Your task to perform on an android device: Open calendar and show me the first week of next month Image 0: 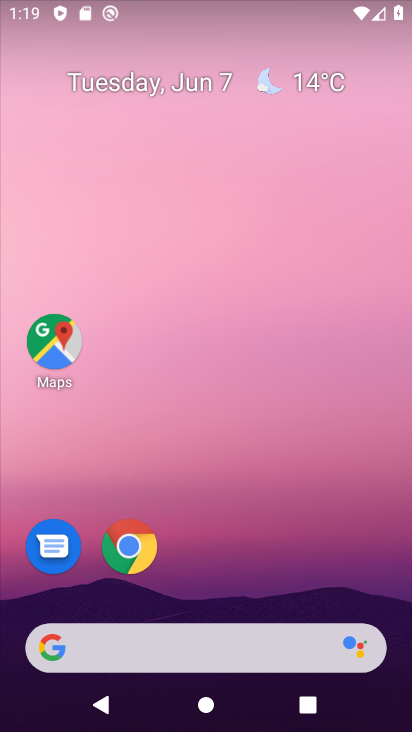
Step 0: drag from (308, 590) to (248, 65)
Your task to perform on an android device: Open calendar and show me the first week of next month Image 1: 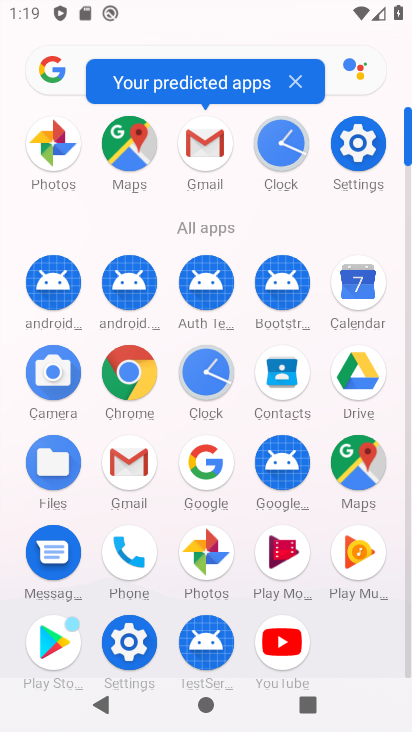
Step 1: click (369, 279)
Your task to perform on an android device: Open calendar and show me the first week of next month Image 2: 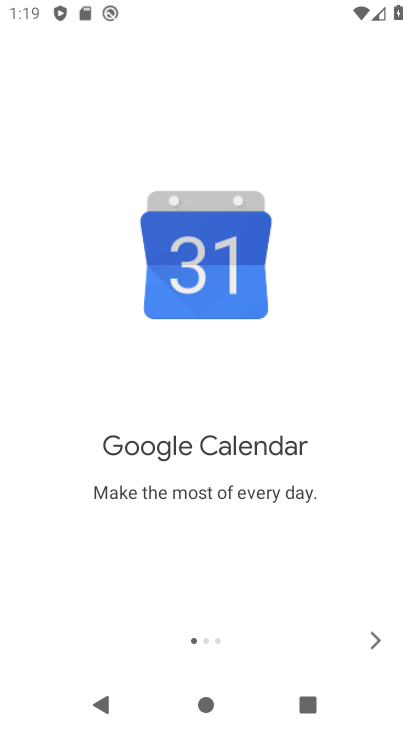
Step 2: click (378, 637)
Your task to perform on an android device: Open calendar and show me the first week of next month Image 3: 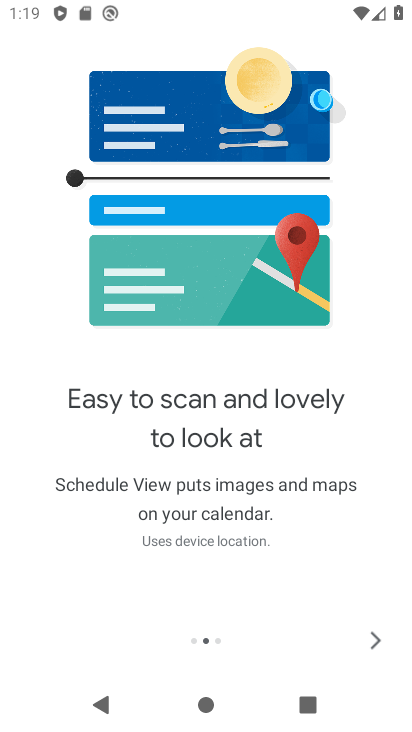
Step 3: click (383, 645)
Your task to perform on an android device: Open calendar and show me the first week of next month Image 4: 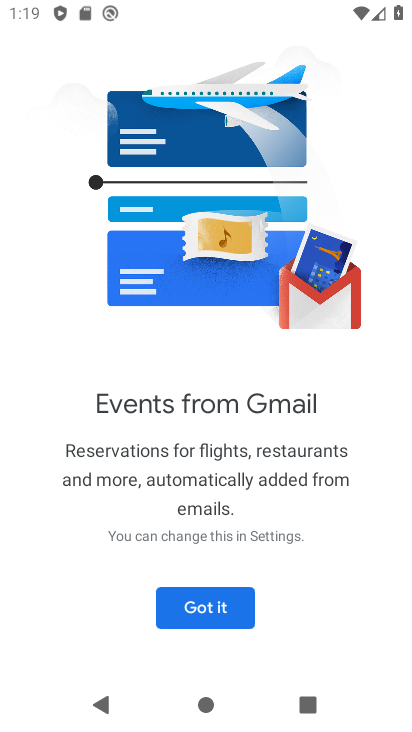
Step 4: click (222, 612)
Your task to perform on an android device: Open calendar and show me the first week of next month Image 5: 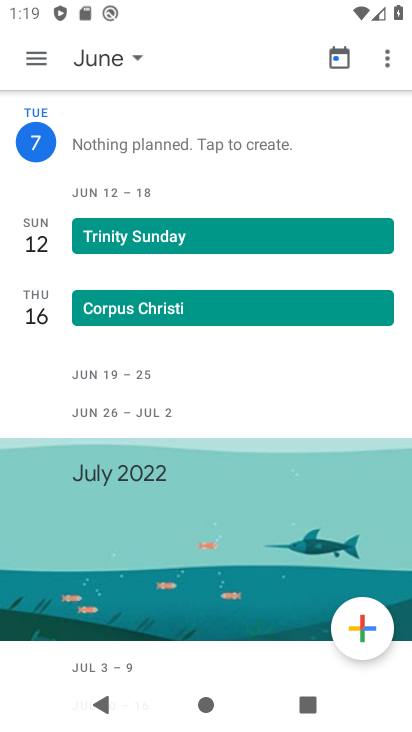
Step 5: click (38, 58)
Your task to perform on an android device: Open calendar and show me the first week of next month Image 6: 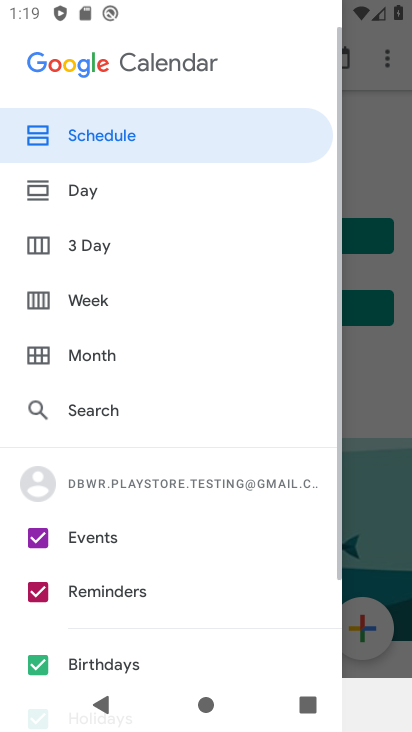
Step 6: click (122, 299)
Your task to perform on an android device: Open calendar and show me the first week of next month Image 7: 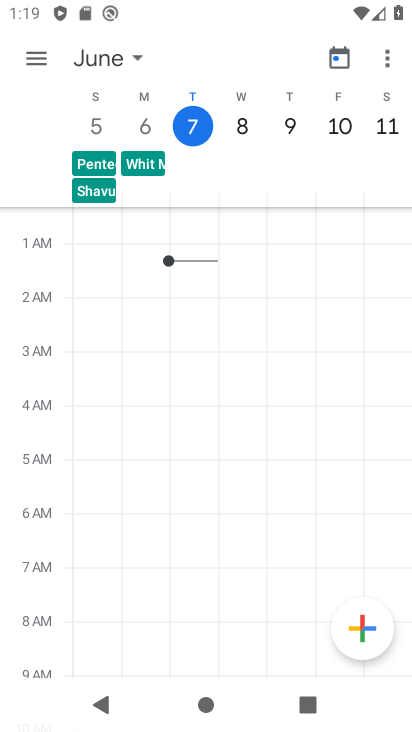
Step 7: click (127, 69)
Your task to perform on an android device: Open calendar and show me the first week of next month Image 8: 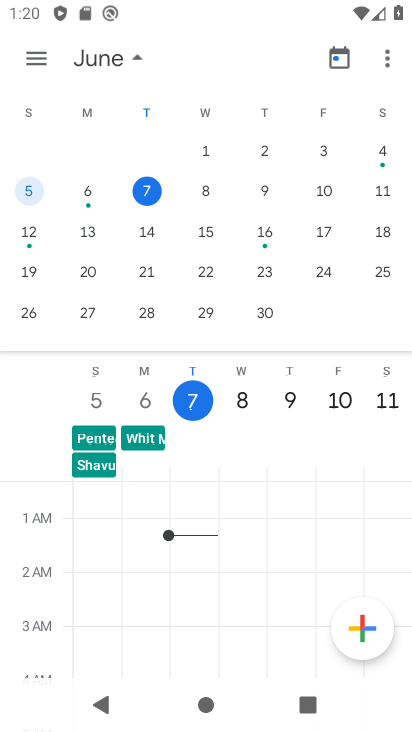
Step 8: drag from (395, 215) to (45, 260)
Your task to perform on an android device: Open calendar and show me the first week of next month Image 9: 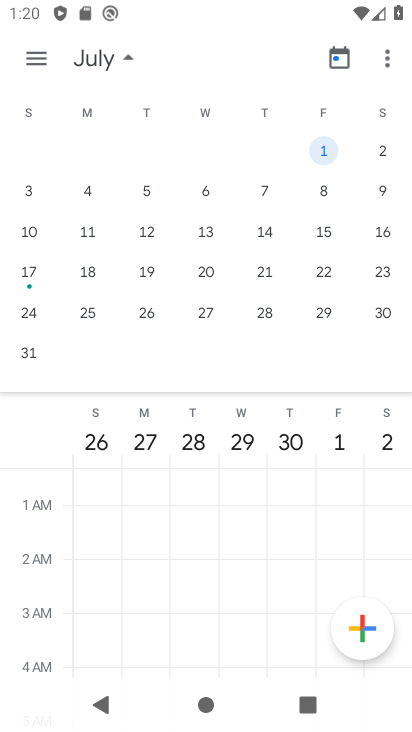
Step 9: click (201, 187)
Your task to perform on an android device: Open calendar and show me the first week of next month Image 10: 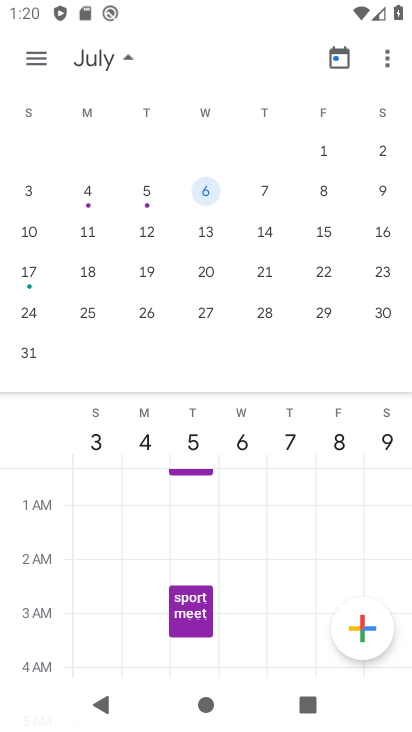
Step 10: task complete